Your task to perform on an android device: change text size in settings app Image 0: 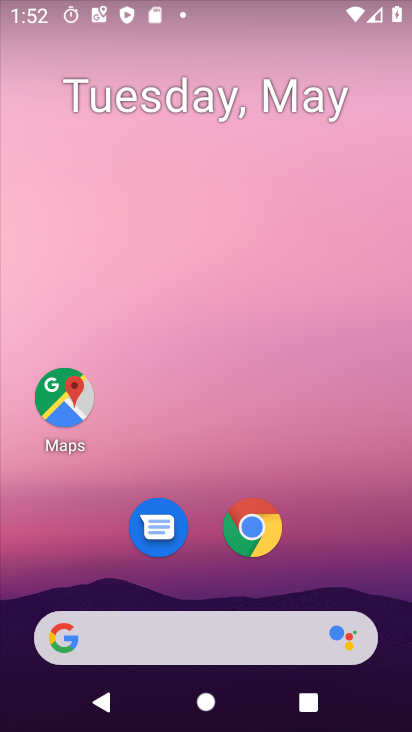
Step 0: drag from (269, 652) to (271, 180)
Your task to perform on an android device: change text size in settings app Image 1: 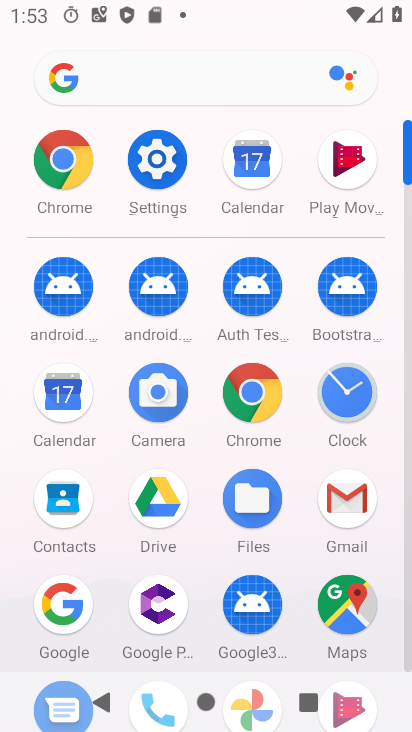
Step 1: click (176, 160)
Your task to perform on an android device: change text size in settings app Image 2: 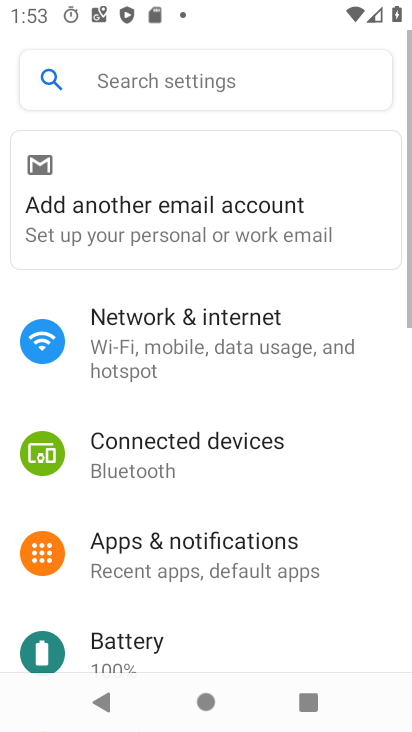
Step 2: click (170, 73)
Your task to perform on an android device: change text size in settings app Image 3: 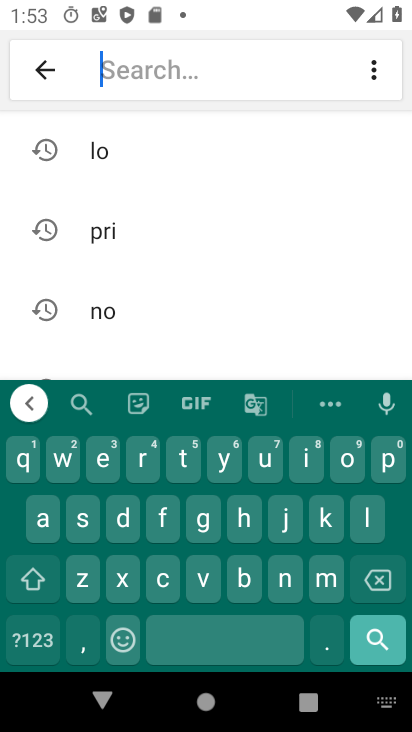
Step 3: click (81, 523)
Your task to perform on an android device: change text size in settings app Image 4: 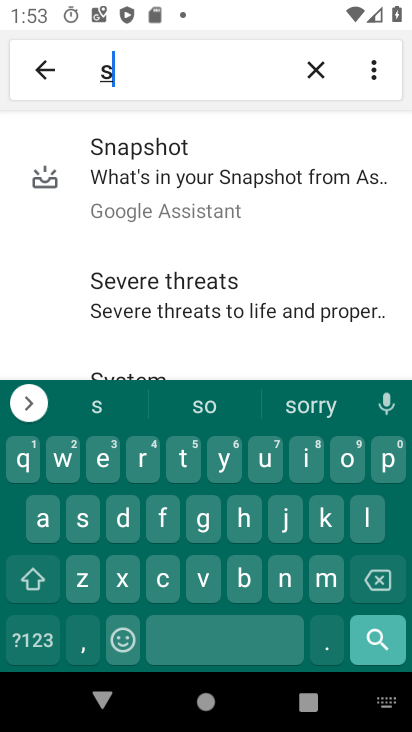
Step 4: click (309, 463)
Your task to perform on an android device: change text size in settings app Image 5: 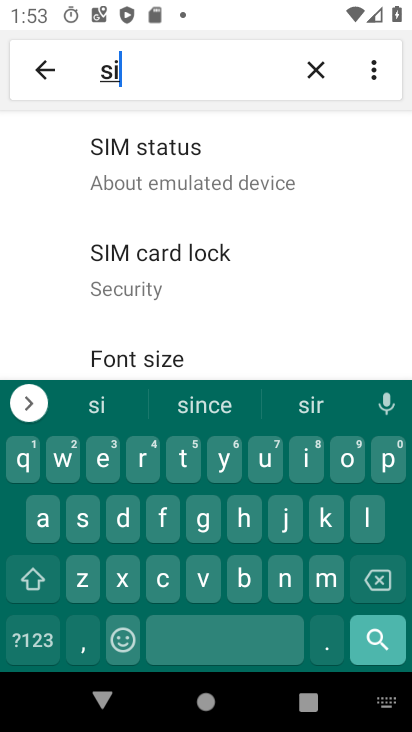
Step 5: click (80, 586)
Your task to perform on an android device: change text size in settings app Image 6: 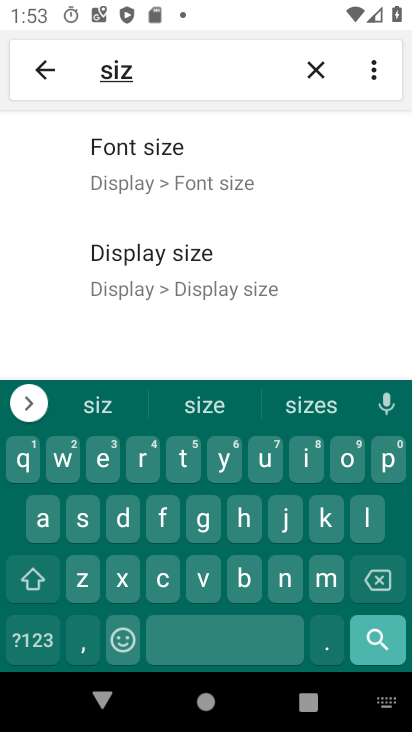
Step 6: click (167, 156)
Your task to perform on an android device: change text size in settings app Image 7: 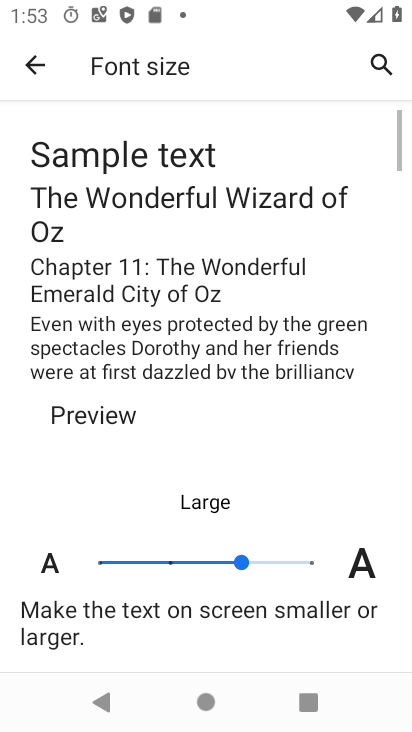
Step 7: task complete